Your task to perform on an android device: Go to accessibility settings Image 0: 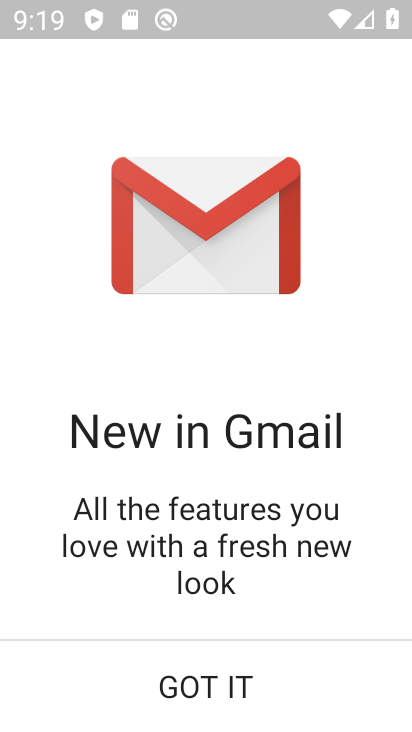
Step 0: click (156, 670)
Your task to perform on an android device: Go to accessibility settings Image 1: 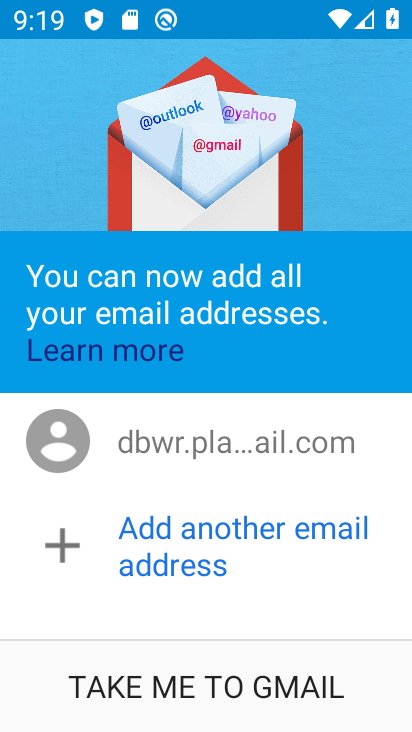
Step 1: click (174, 667)
Your task to perform on an android device: Go to accessibility settings Image 2: 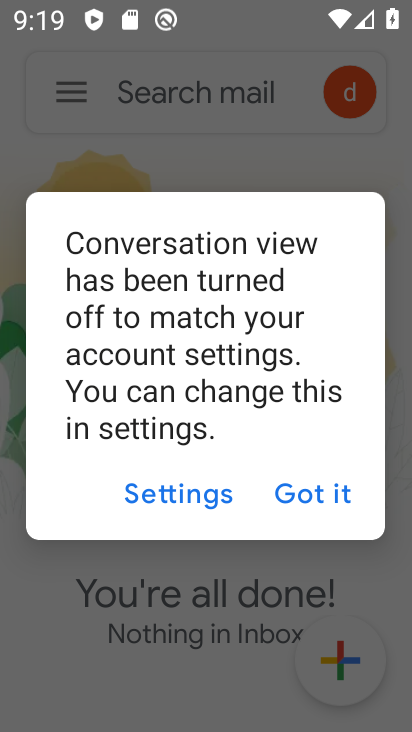
Step 2: press home button
Your task to perform on an android device: Go to accessibility settings Image 3: 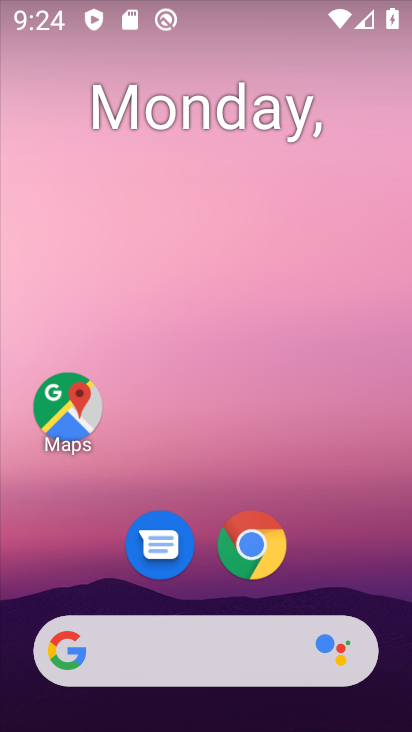
Step 3: drag from (50, 609) to (284, 161)
Your task to perform on an android device: Go to accessibility settings Image 4: 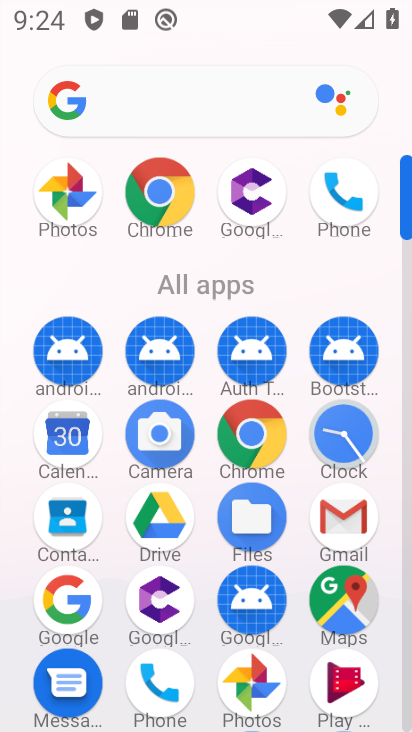
Step 4: drag from (149, 517) to (341, 78)
Your task to perform on an android device: Go to accessibility settings Image 5: 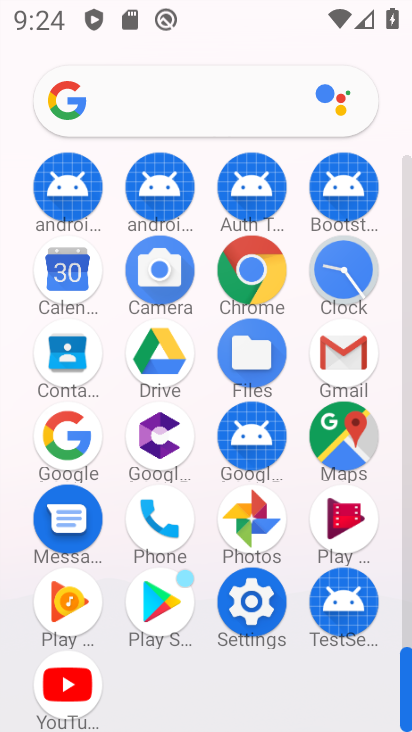
Step 5: click (242, 609)
Your task to perform on an android device: Go to accessibility settings Image 6: 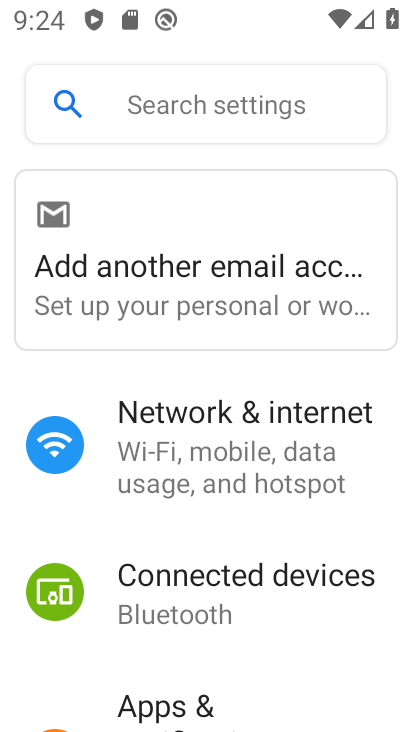
Step 6: drag from (41, 597) to (231, 171)
Your task to perform on an android device: Go to accessibility settings Image 7: 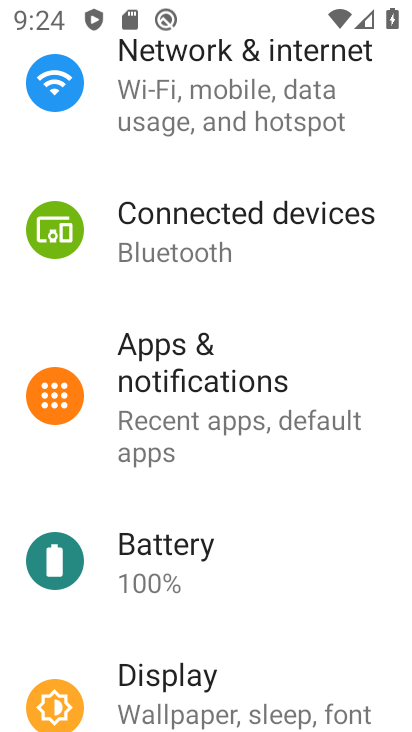
Step 7: drag from (19, 529) to (221, 202)
Your task to perform on an android device: Go to accessibility settings Image 8: 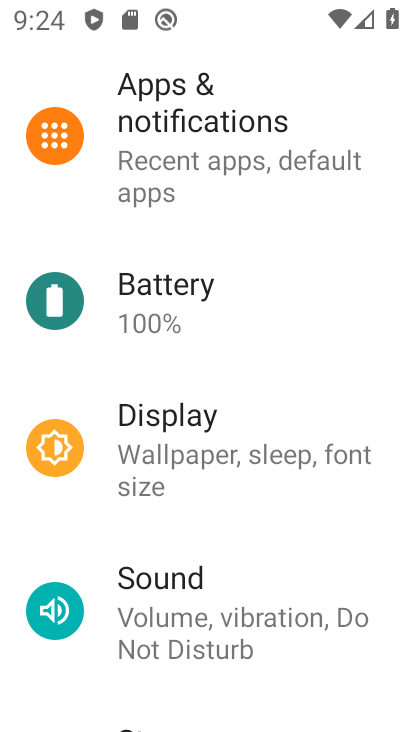
Step 8: drag from (57, 552) to (304, 210)
Your task to perform on an android device: Go to accessibility settings Image 9: 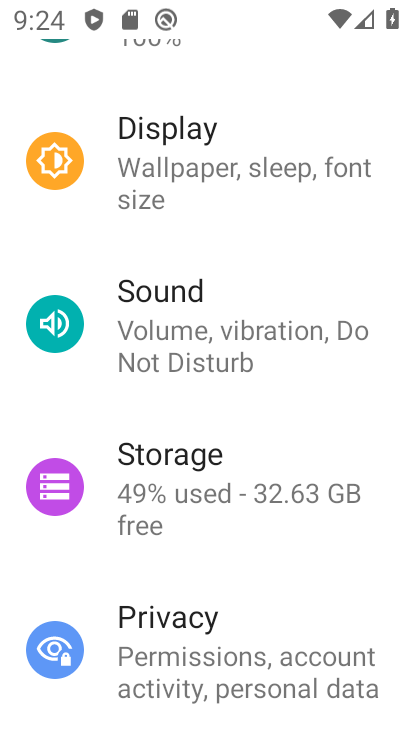
Step 9: drag from (67, 631) to (301, 251)
Your task to perform on an android device: Go to accessibility settings Image 10: 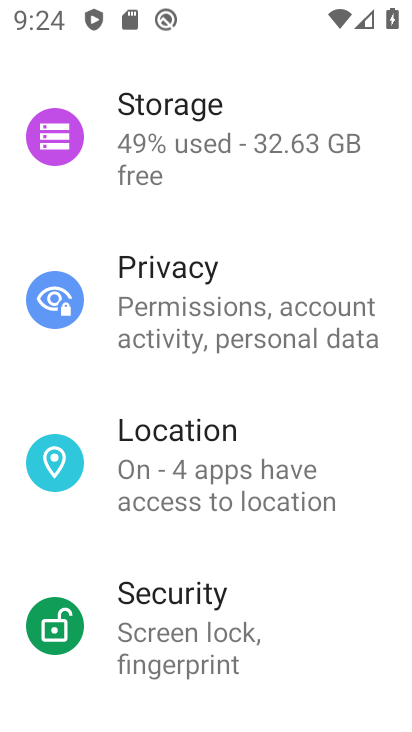
Step 10: drag from (62, 694) to (305, 259)
Your task to perform on an android device: Go to accessibility settings Image 11: 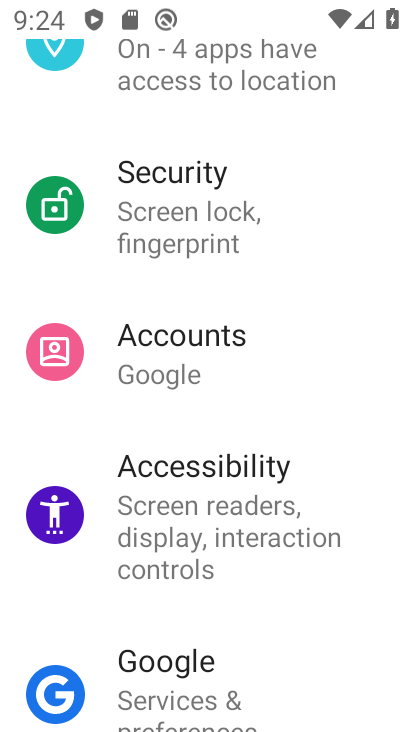
Step 11: click (183, 482)
Your task to perform on an android device: Go to accessibility settings Image 12: 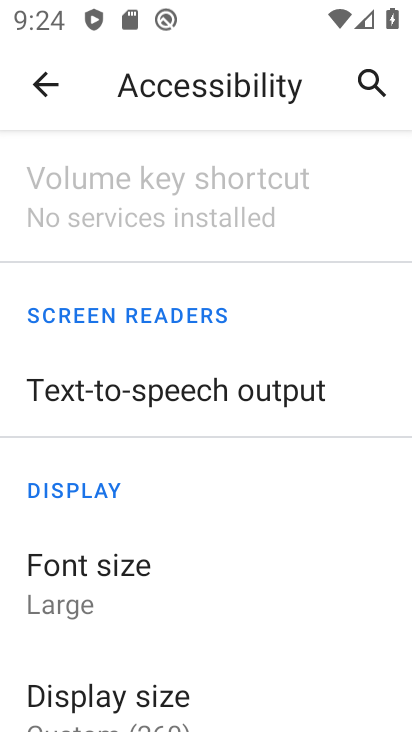
Step 12: task complete